Your task to perform on an android device: see creations saved in the google photos Image 0: 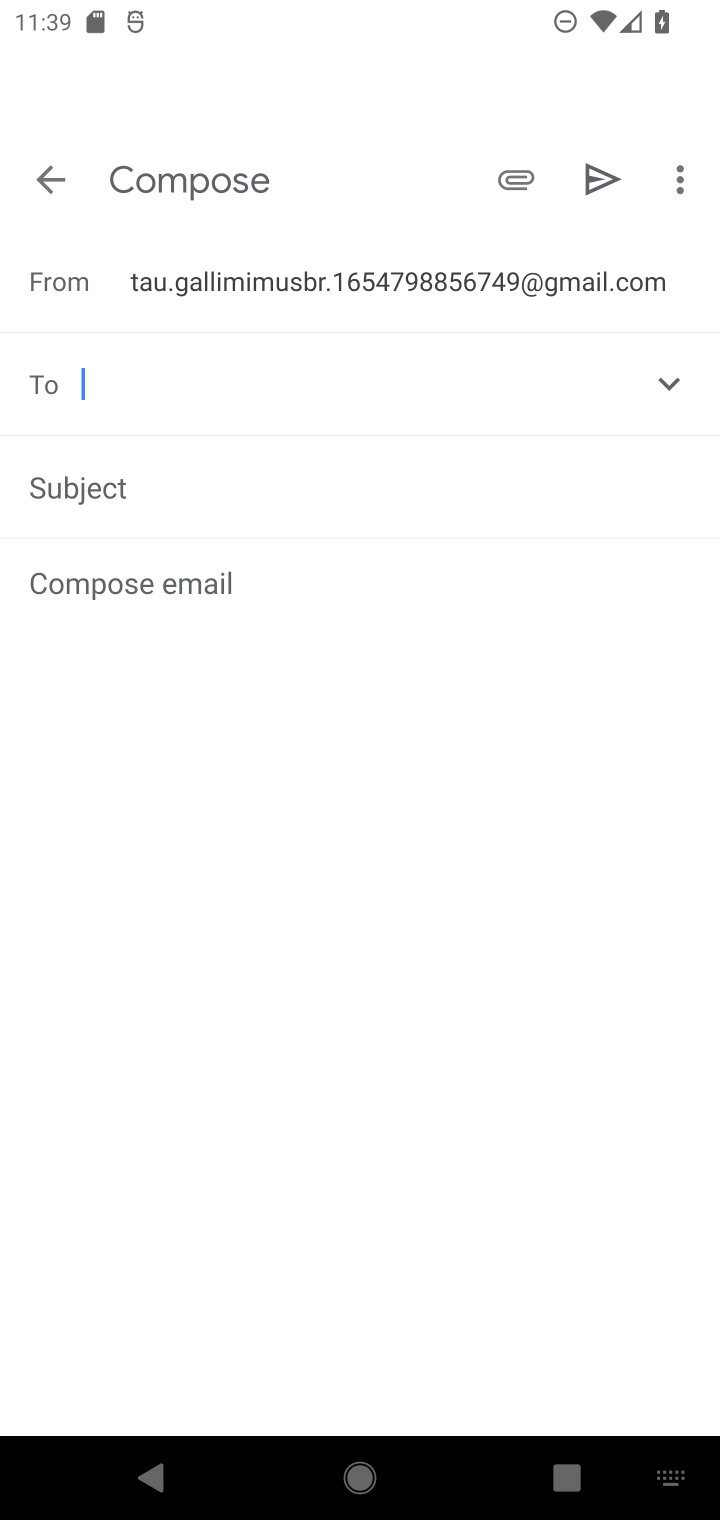
Step 0: press home button
Your task to perform on an android device: see creations saved in the google photos Image 1: 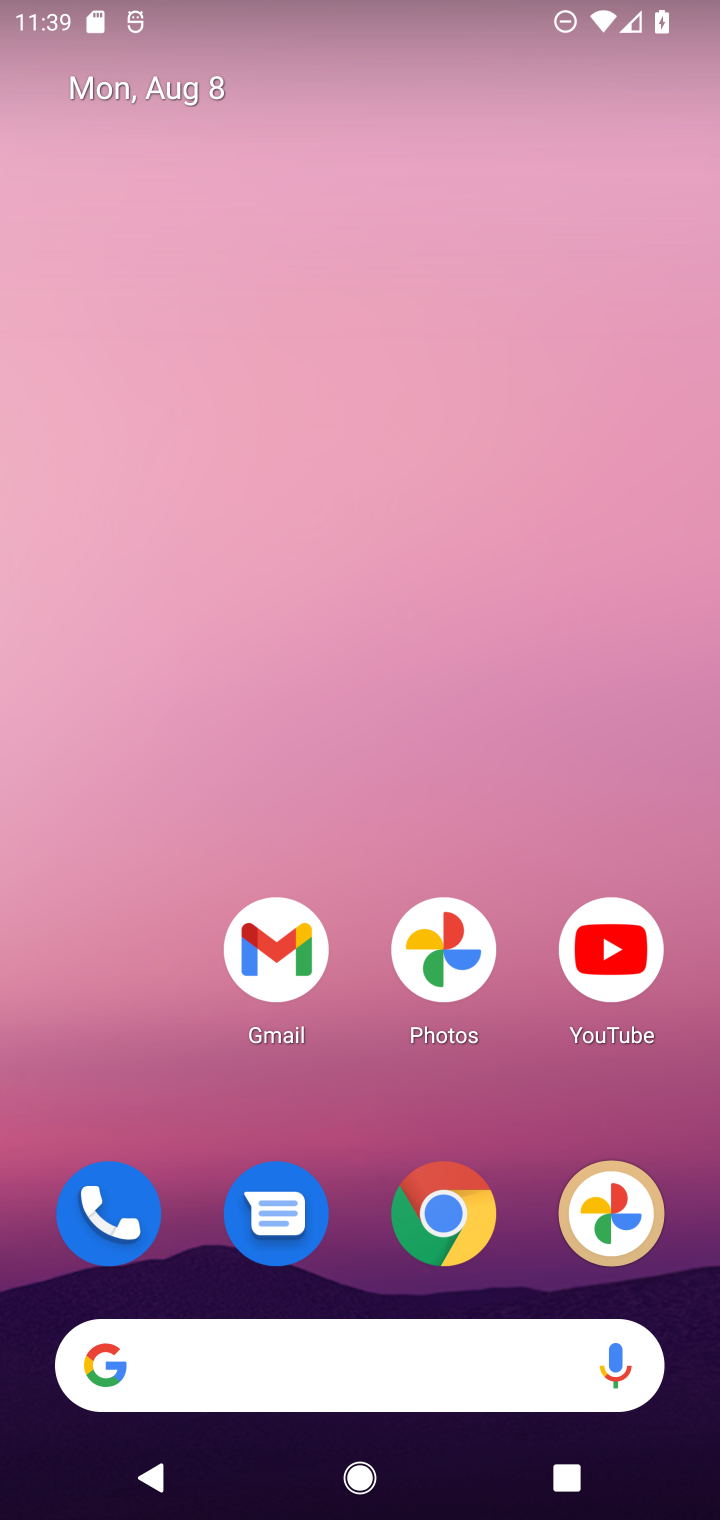
Step 1: click (449, 930)
Your task to perform on an android device: see creations saved in the google photos Image 2: 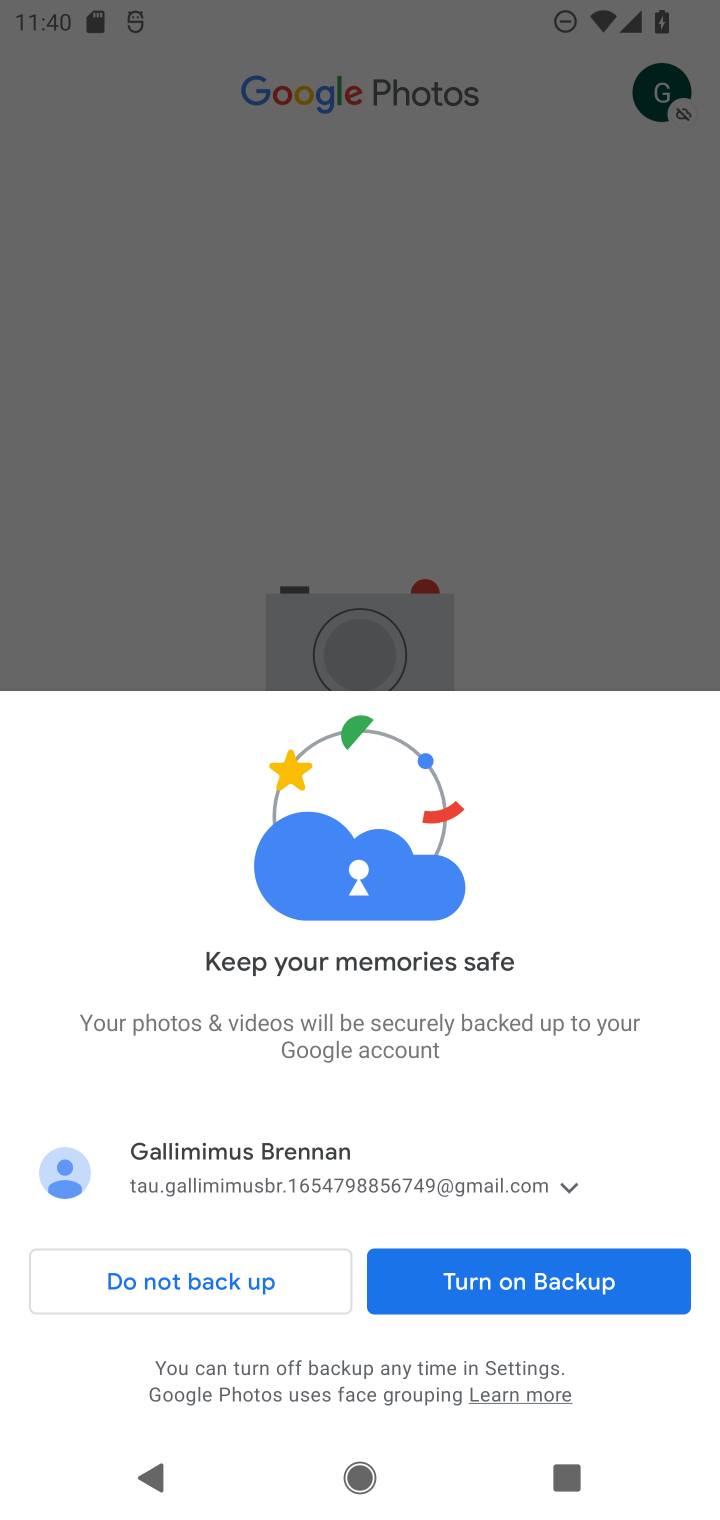
Step 2: click (520, 1274)
Your task to perform on an android device: see creations saved in the google photos Image 3: 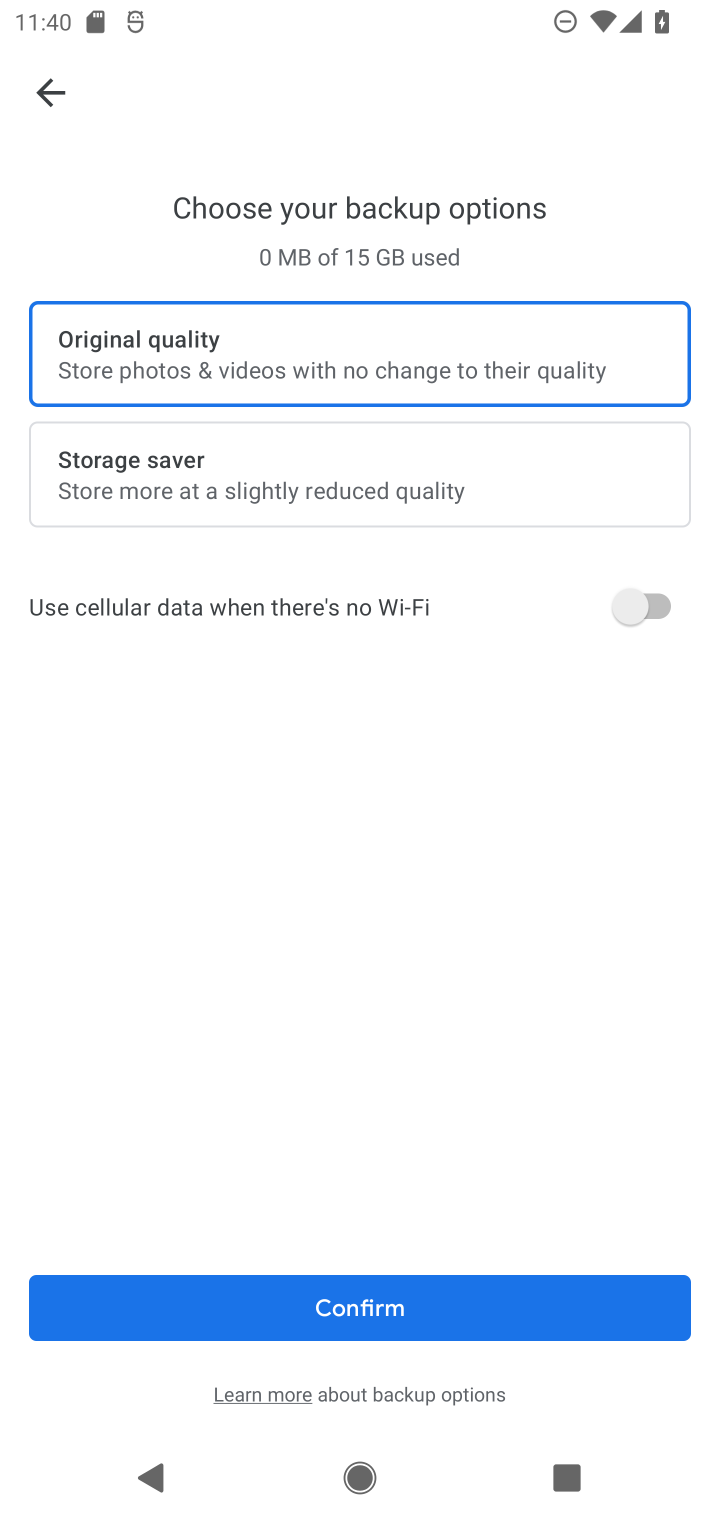
Step 3: click (374, 1297)
Your task to perform on an android device: see creations saved in the google photos Image 4: 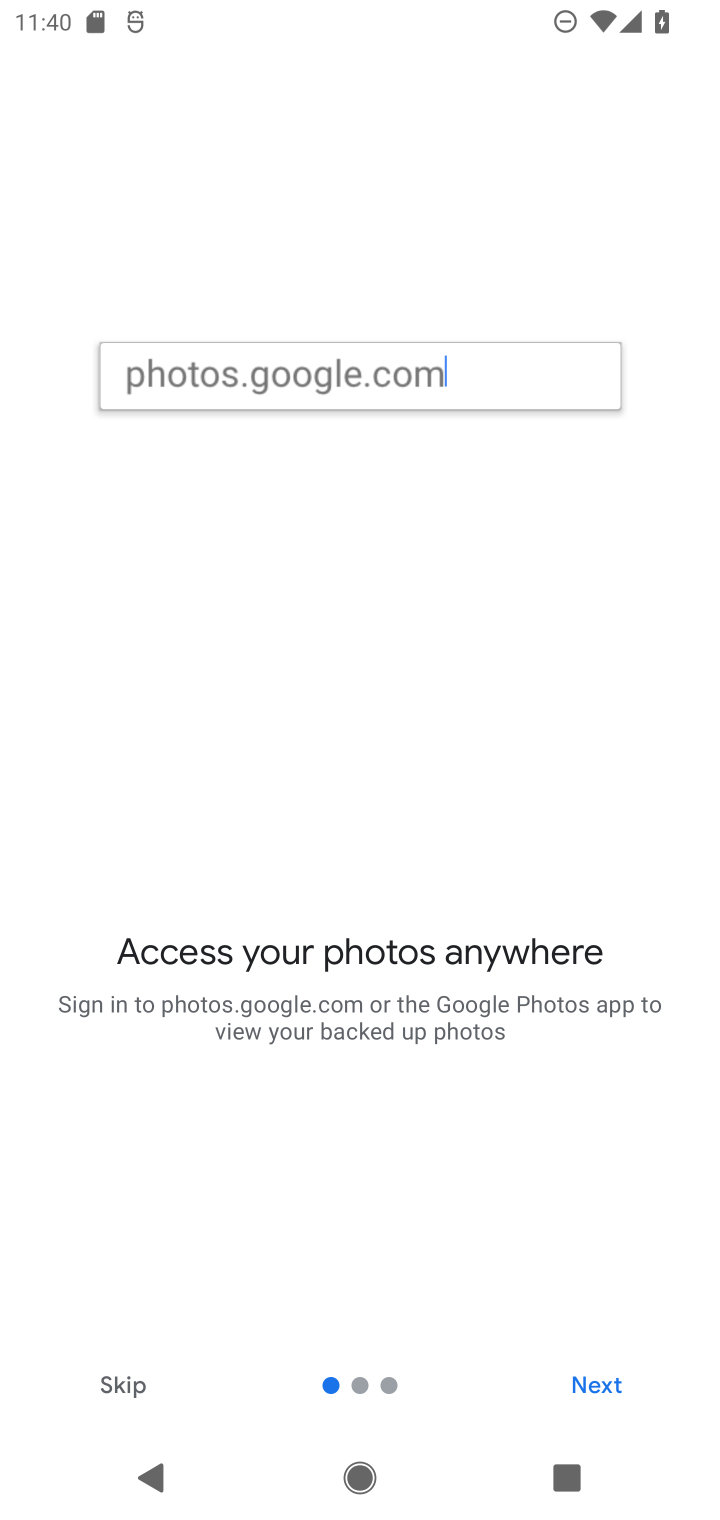
Step 4: click (578, 1376)
Your task to perform on an android device: see creations saved in the google photos Image 5: 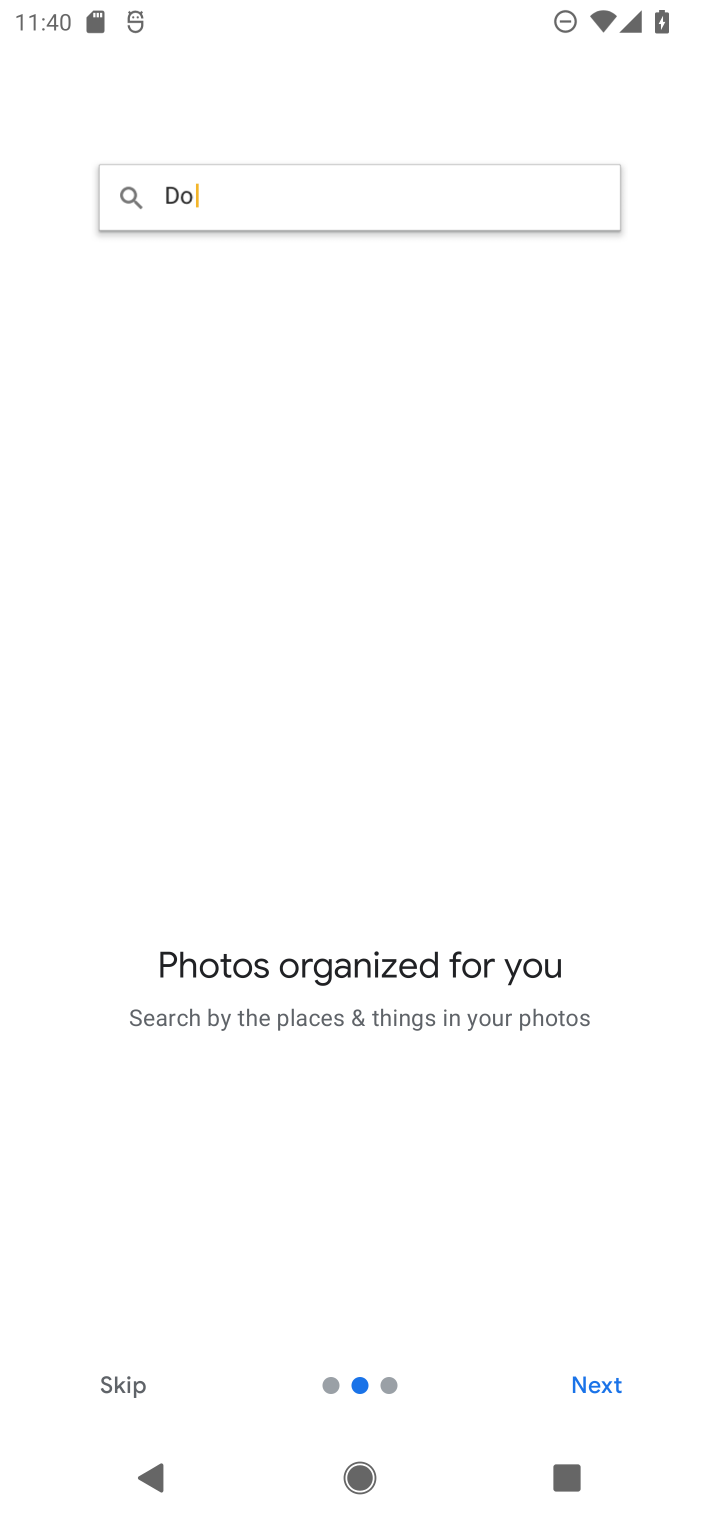
Step 5: click (590, 1378)
Your task to perform on an android device: see creations saved in the google photos Image 6: 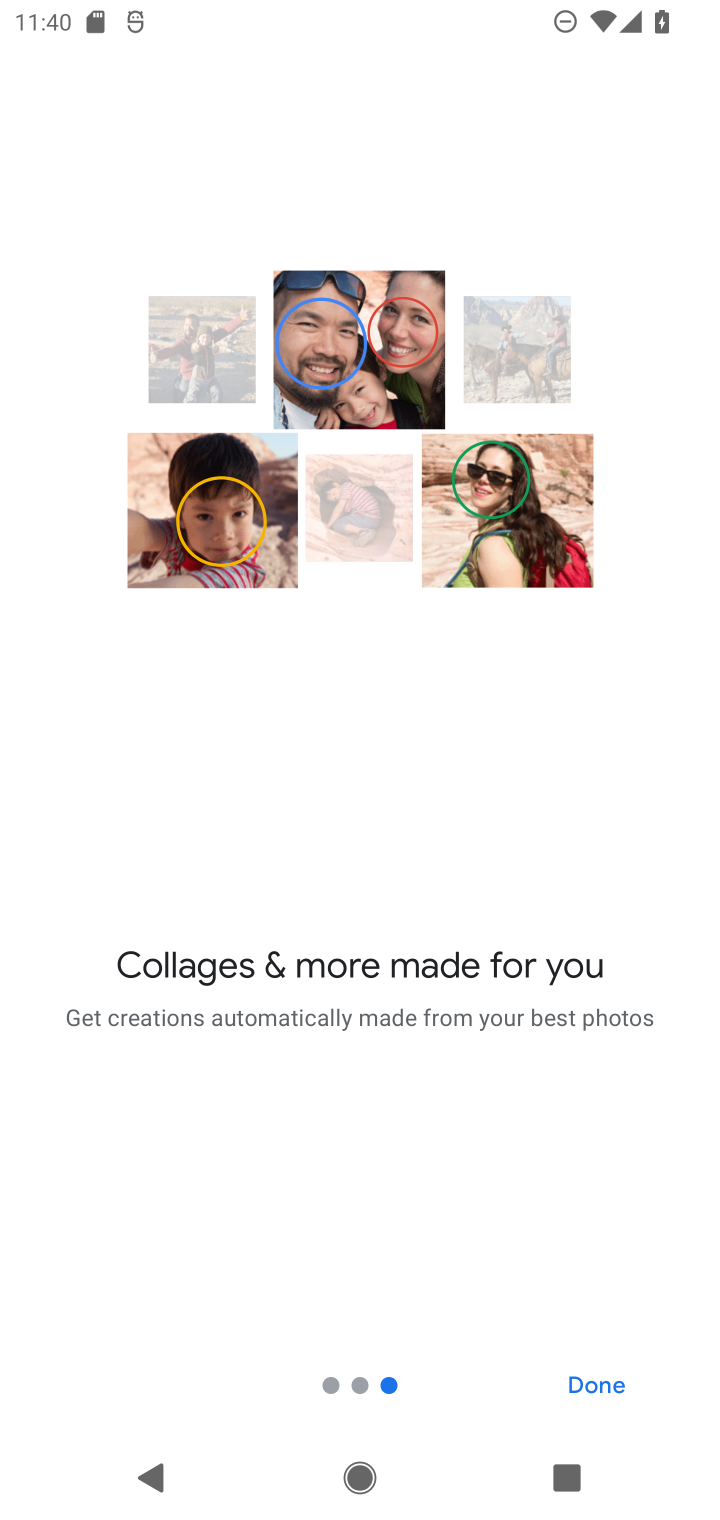
Step 6: click (599, 1372)
Your task to perform on an android device: see creations saved in the google photos Image 7: 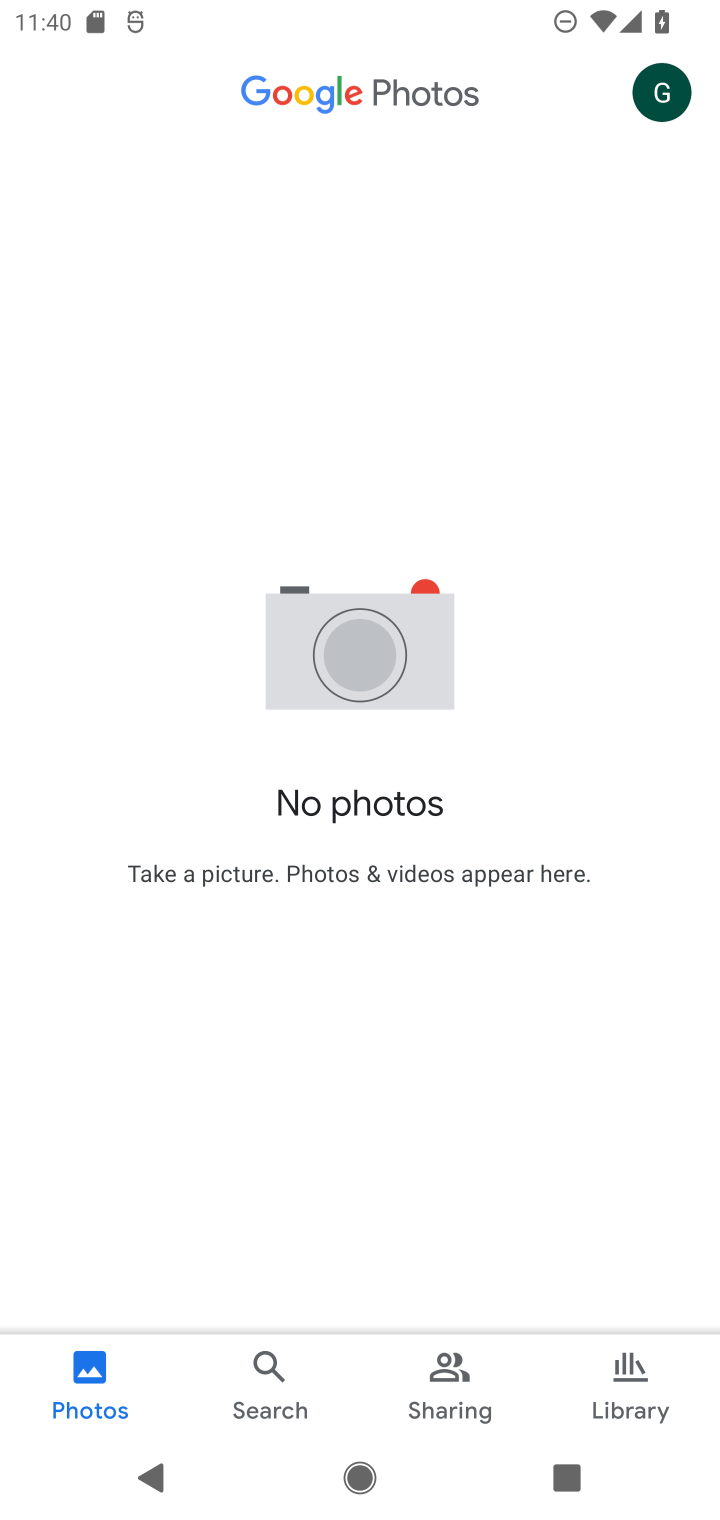
Step 7: click (278, 1367)
Your task to perform on an android device: see creations saved in the google photos Image 8: 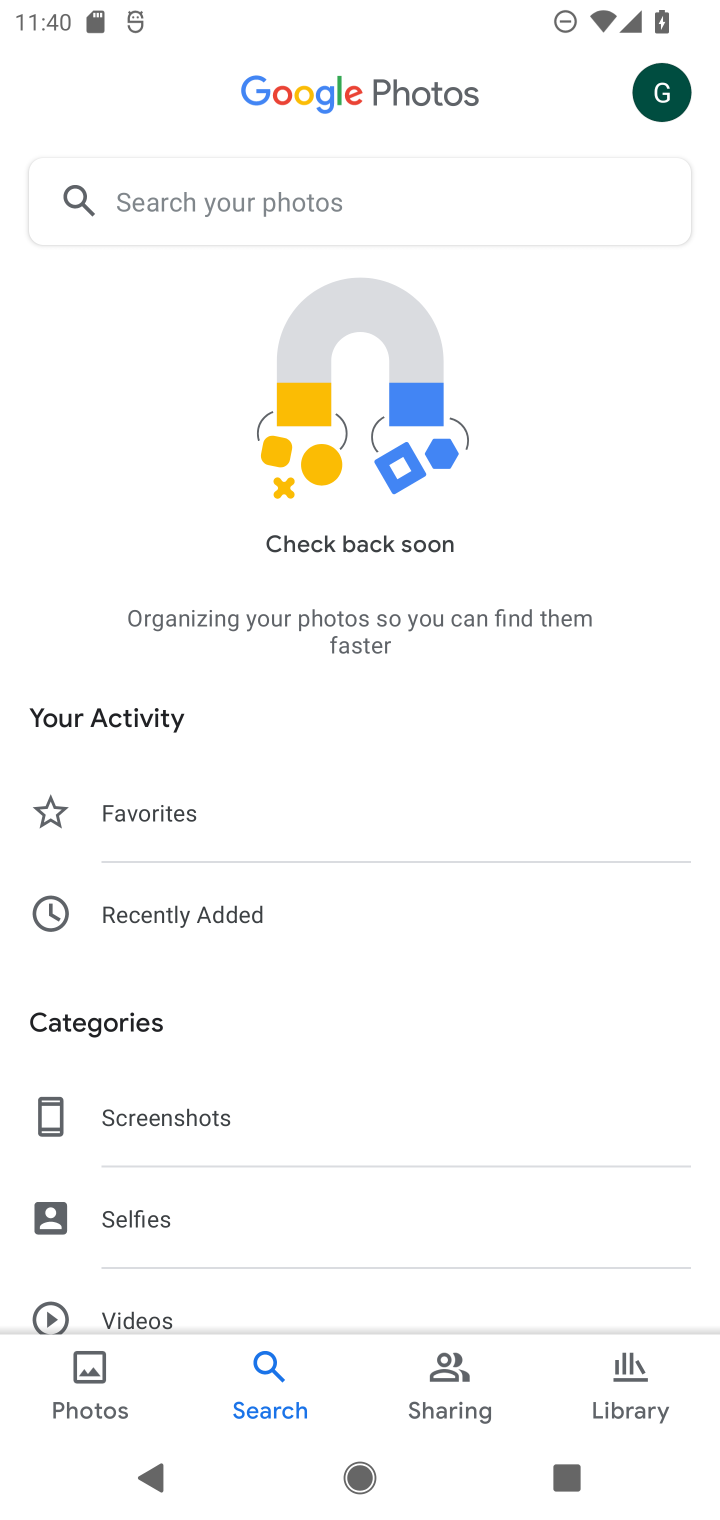
Step 8: drag from (315, 1187) to (385, 389)
Your task to perform on an android device: see creations saved in the google photos Image 9: 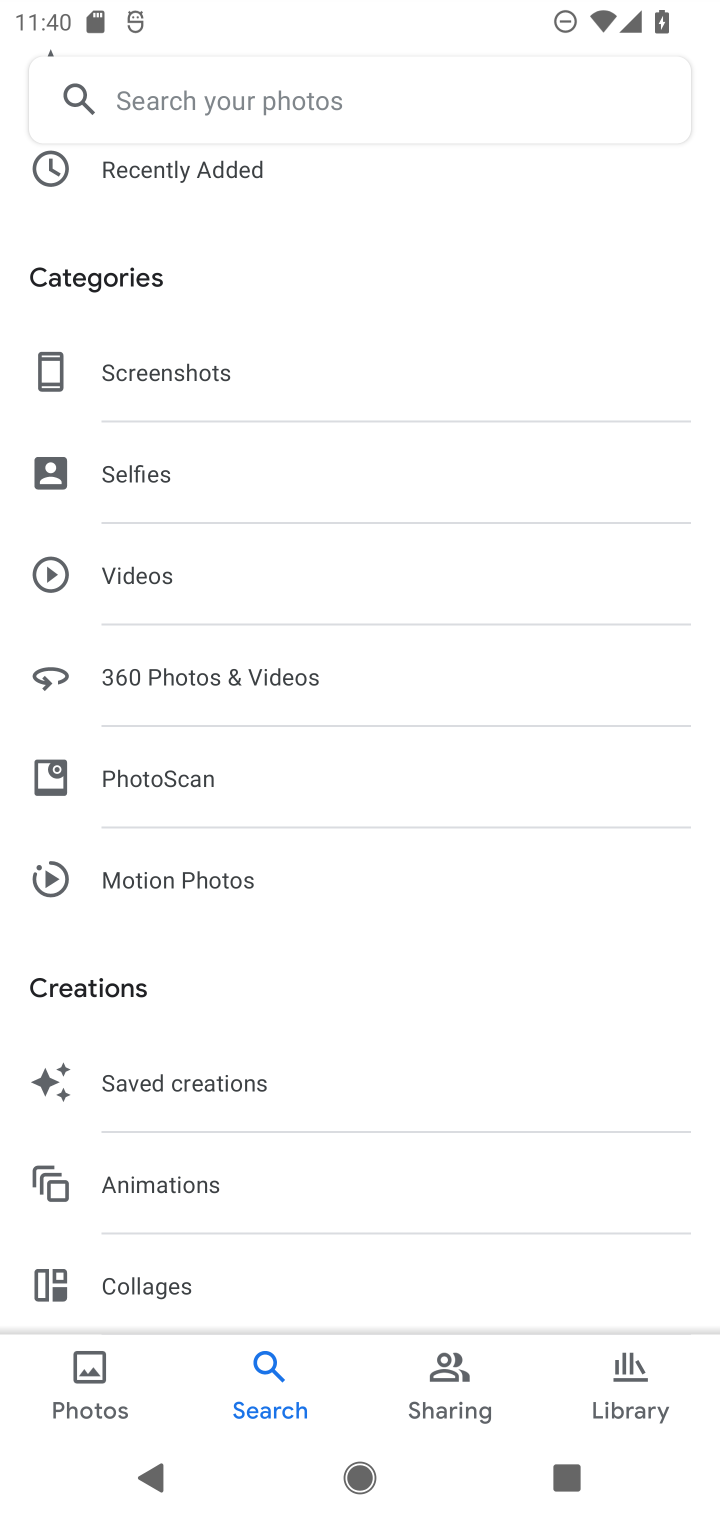
Step 9: click (258, 1091)
Your task to perform on an android device: see creations saved in the google photos Image 10: 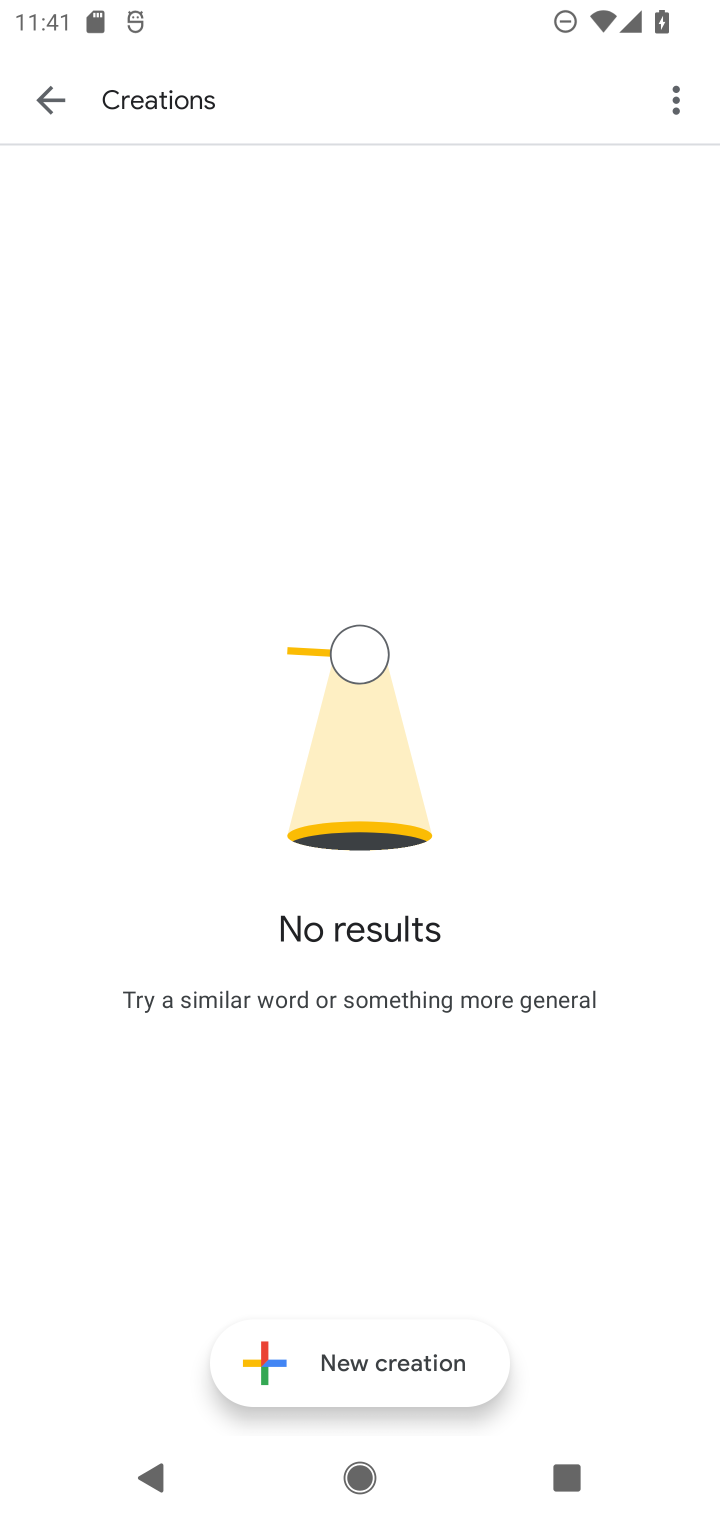
Step 10: task complete